Your task to perform on an android device: stop showing notifications on the lock screen Image 0: 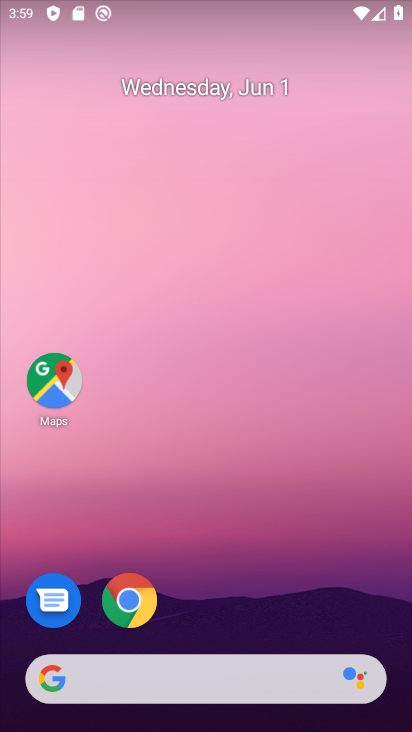
Step 0: drag from (226, 651) to (218, 330)
Your task to perform on an android device: stop showing notifications on the lock screen Image 1: 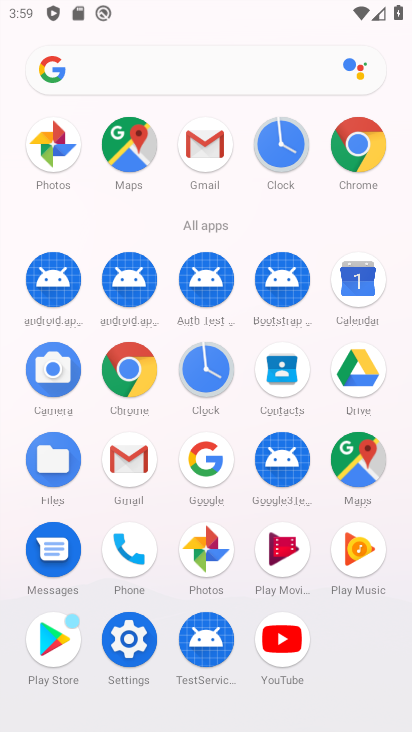
Step 1: click (132, 637)
Your task to perform on an android device: stop showing notifications on the lock screen Image 2: 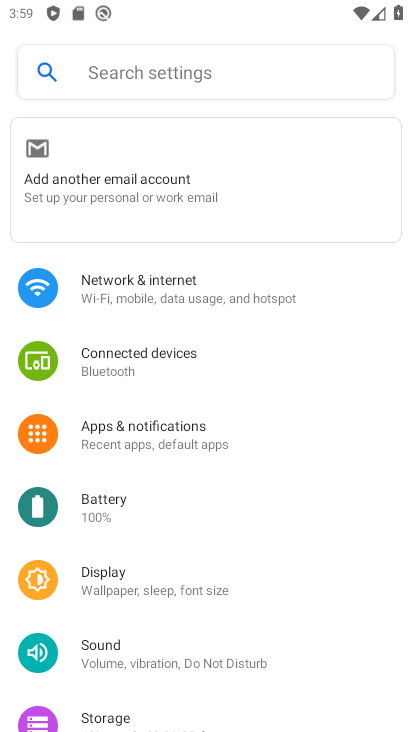
Step 2: drag from (148, 580) to (144, 355)
Your task to perform on an android device: stop showing notifications on the lock screen Image 3: 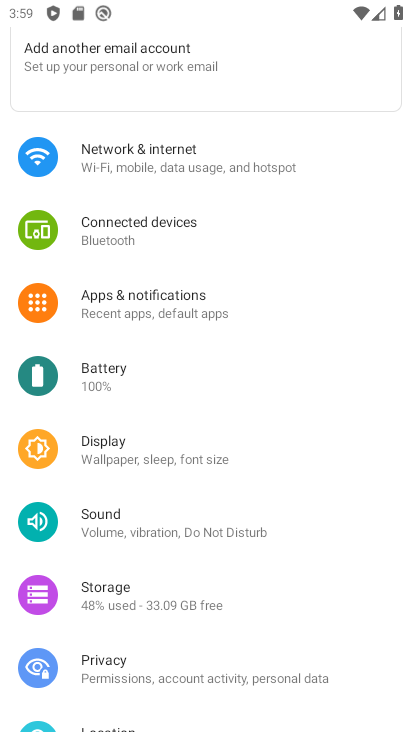
Step 3: click (120, 674)
Your task to perform on an android device: stop showing notifications on the lock screen Image 4: 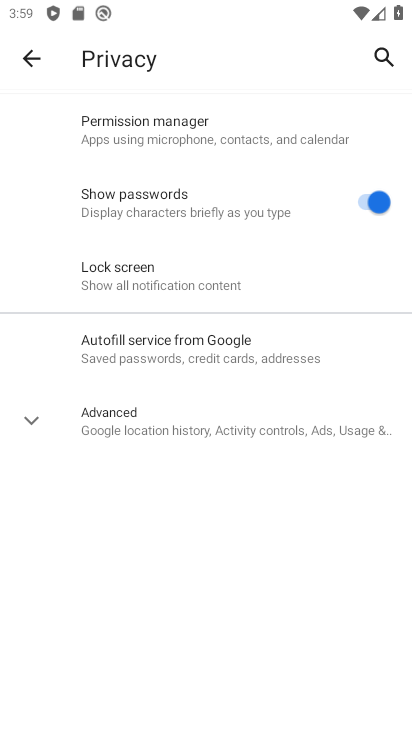
Step 4: click (113, 400)
Your task to perform on an android device: stop showing notifications on the lock screen Image 5: 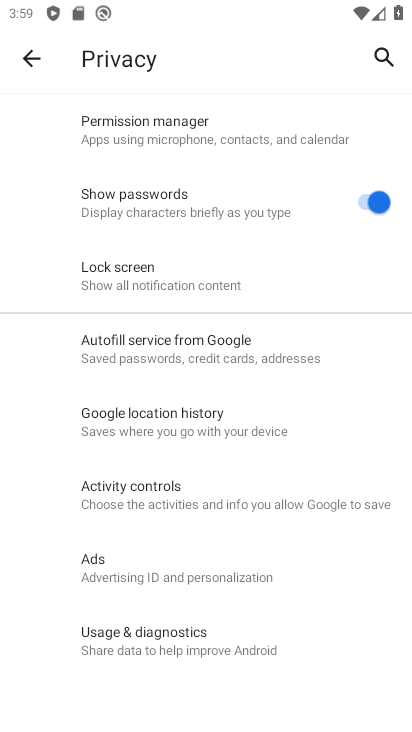
Step 5: click (116, 278)
Your task to perform on an android device: stop showing notifications on the lock screen Image 6: 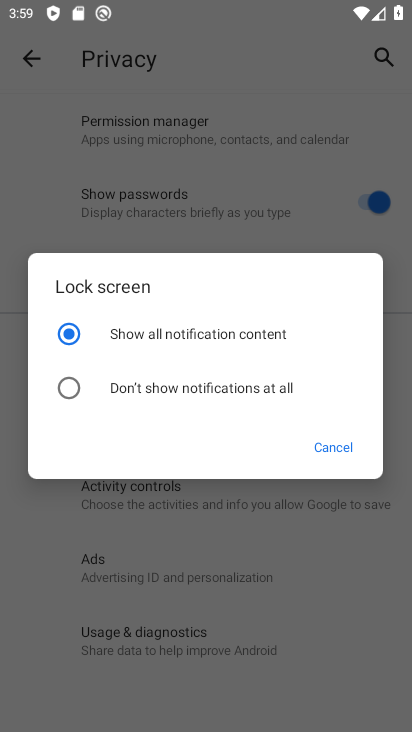
Step 6: click (131, 386)
Your task to perform on an android device: stop showing notifications on the lock screen Image 7: 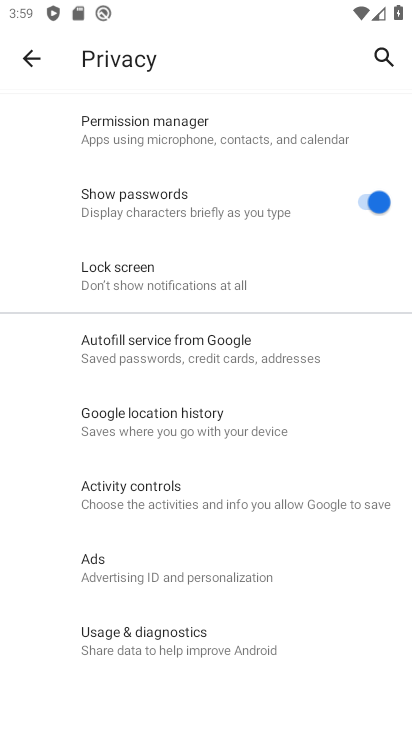
Step 7: task complete